Your task to perform on an android device: change the upload size in google photos Image 0: 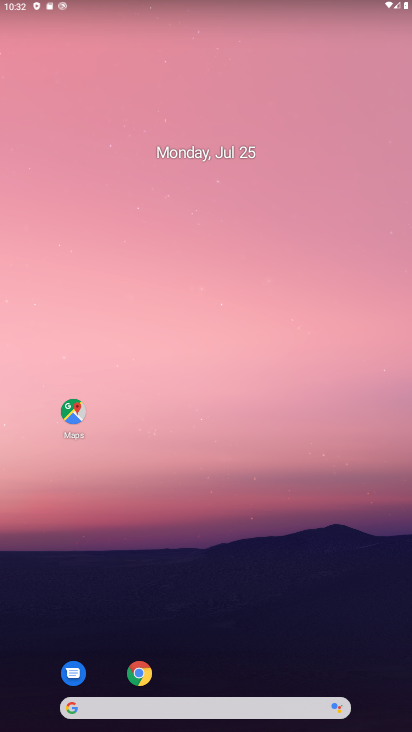
Step 0: press home button
Your task to perform on an android device: change the upload size in google photos Image 1: 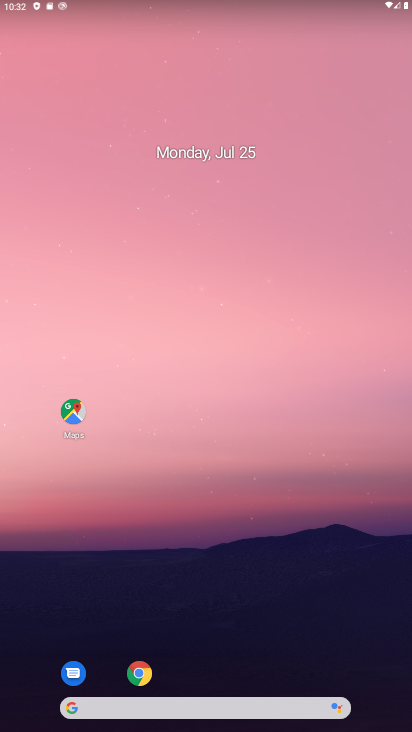
Step 1: drag from (206, 674) to (220, 10)
Your task to perform on an android device: change the upload size in google photos Image 2: 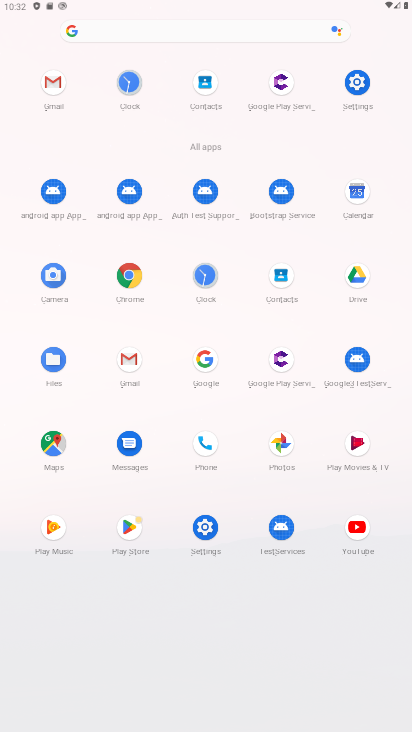
Step 2: click (279, 437)
Your task to perform on an android device: change the upload size in google photos Image 3: 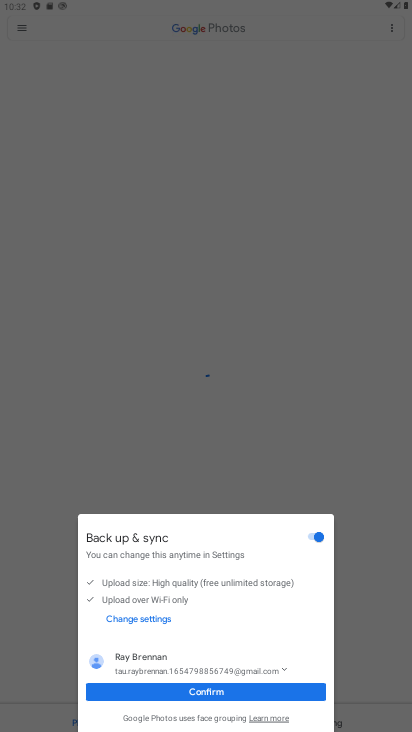
Step 3: click (19, 21)
Your task to perform on an android device: change the upload size in google photos Image 4: 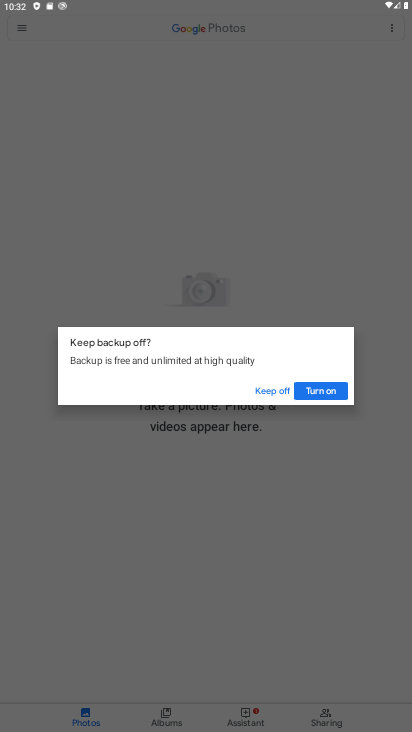
Step 4: click (322, 391)
Your task to perform on an android device: change the upload size in google photos Image 5: 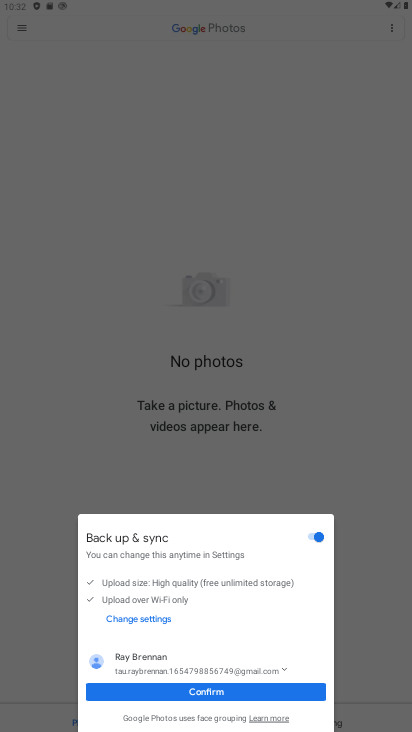
Step 5: click (217, 694)
Your task to perform on an android device: change the upload size in google photos Image 6: 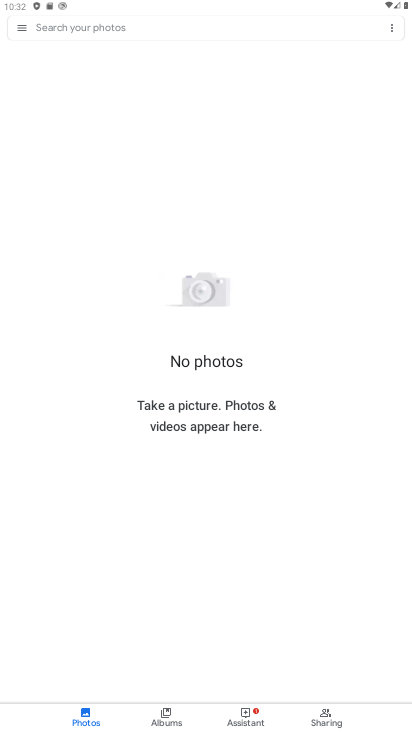
Step 6: click (16, 27)
Your task to perform on an android device: change the upload size in google photos Image 7: 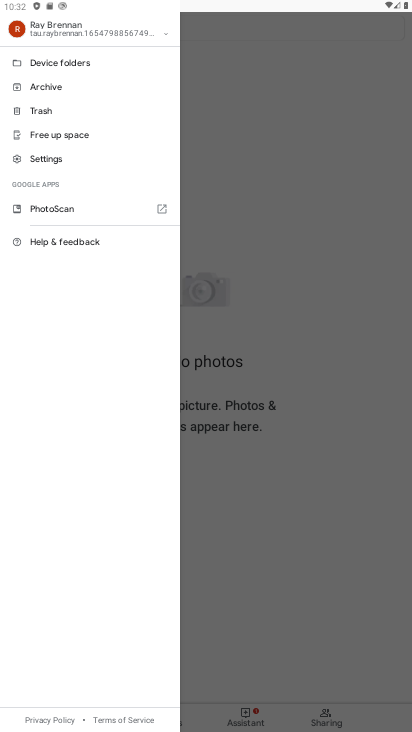
Step 7: click (65, 152)
Your task to perform on an android device: change the upload size in google photos Image 8: 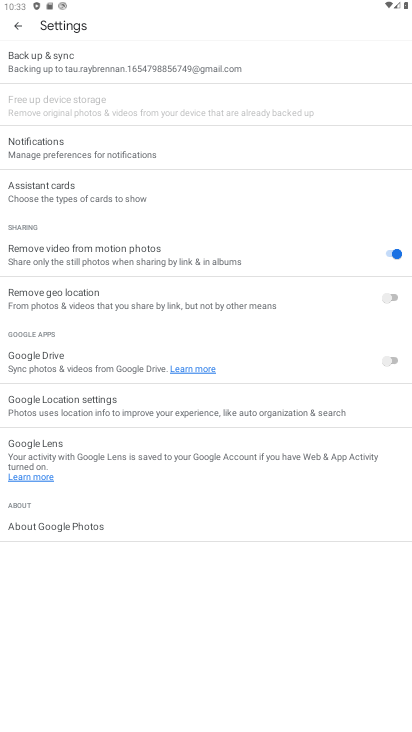
Step 8: click (86, 56)
Your task to perform on an android device: change the upload size in google photos Image 9: 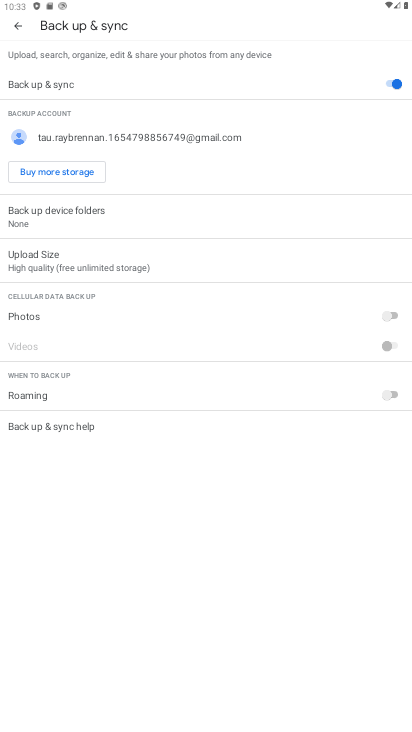
Step 9: click (70, 259)
Your task to perform on an android device: change the upload size in google photos Image 10: 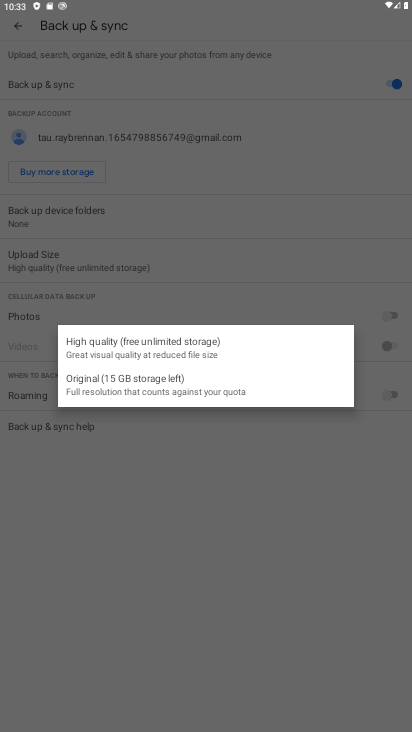
Step 10: click (113, 389)
Your task to perform on an android device: change the upload size in google photos Image 11: 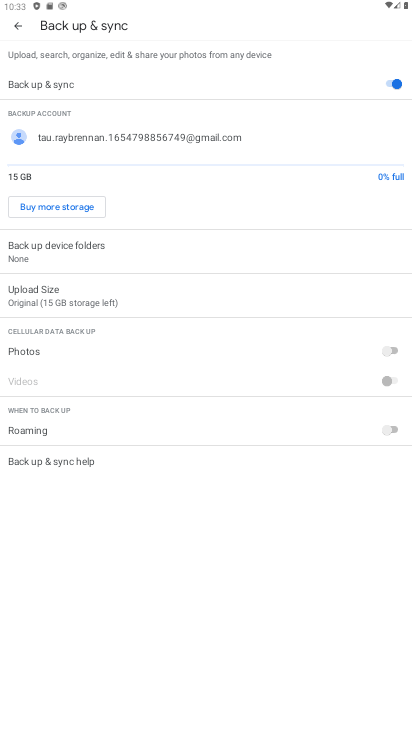
Step 11: task complete